Your task to perform on an android device: change notifications settings Image 0: 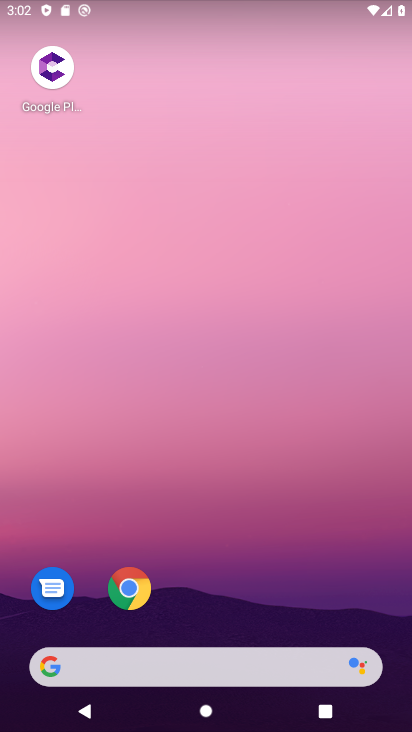
Step 0: drag from (200, 601) to (202, 124)
Your task to perform on an android device: change notifications settings Image 1: 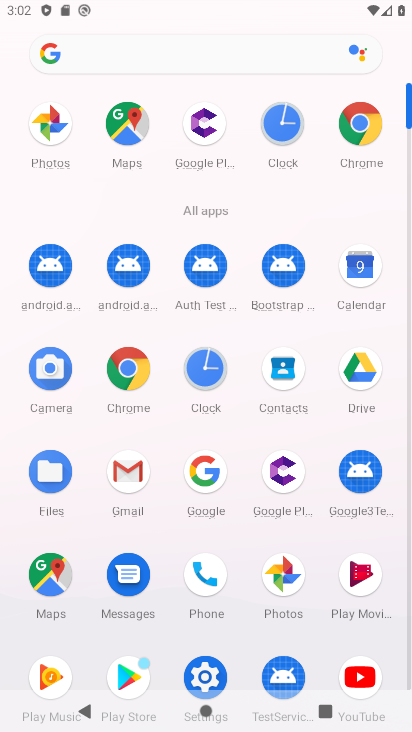
Step 1: click (205, 682)
Your task to perform on an android device: change notifications settings Image 2: 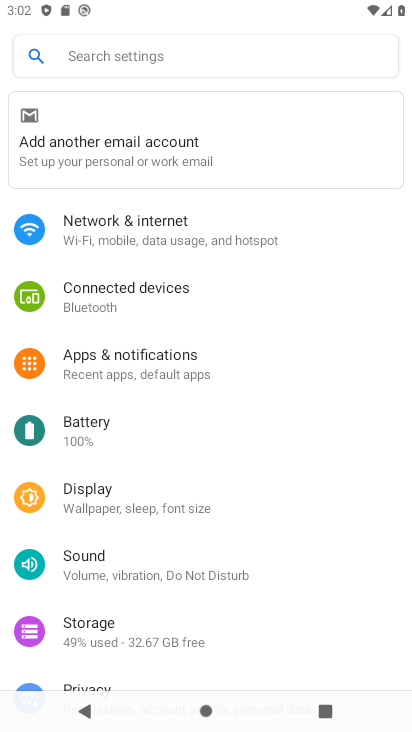
Step 2: click (171, 365)
Your task to perform on an android device: change notifications settings Image 3: 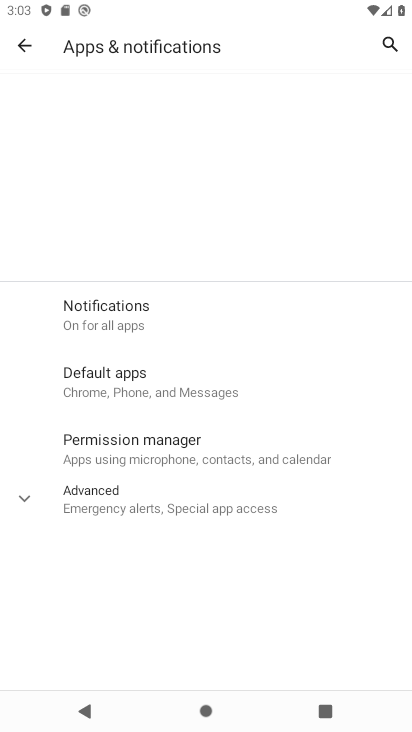
Step 3: click (134, 323)
Your task to perform on an android device: change notifications settings Image 4: 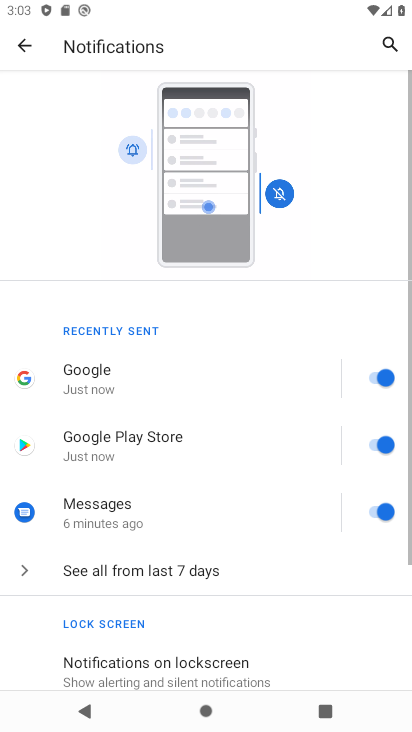
Step 4: drag from (301, 583) to (313, 80)
Your task to perform on an android device: change notifications settings Image 5: 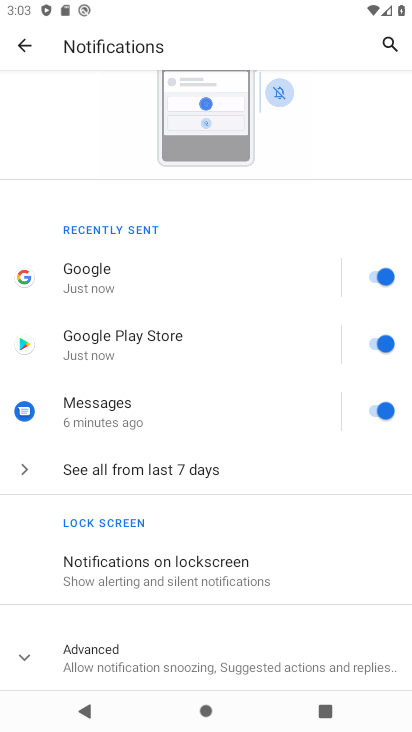
Step 5: drag from (261, 587) to (276, 249)
Your task to perform on an android device: change notifications settings Image 6: 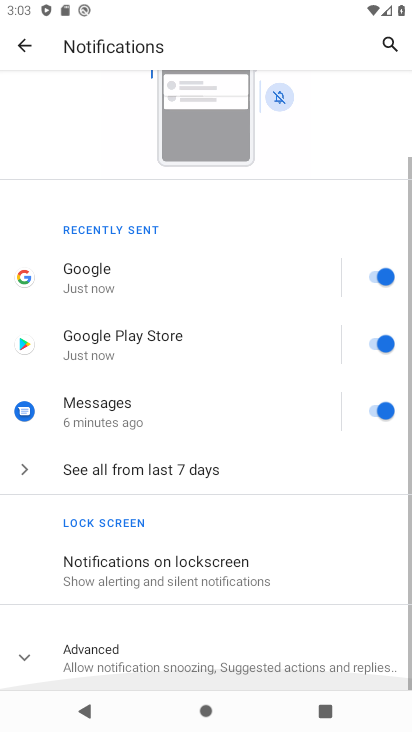
Step 6: click (120, 658)
Your task to perform on an android device: change notifications settings Image 7: 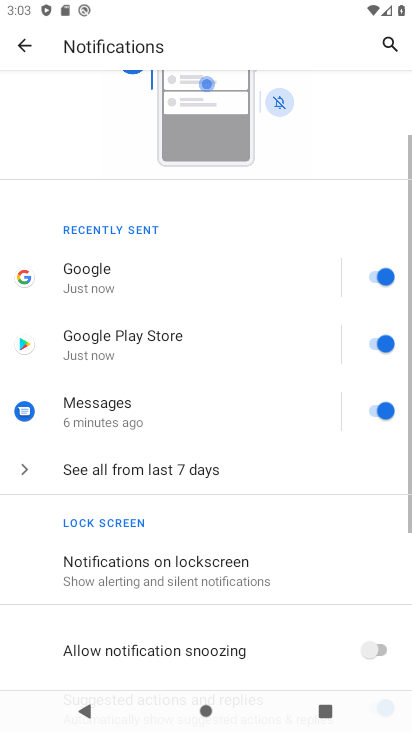
Step 7: drag from (245, 503) to (315, 81)
Your task to perform on an android device: change notifications settings Image 8: 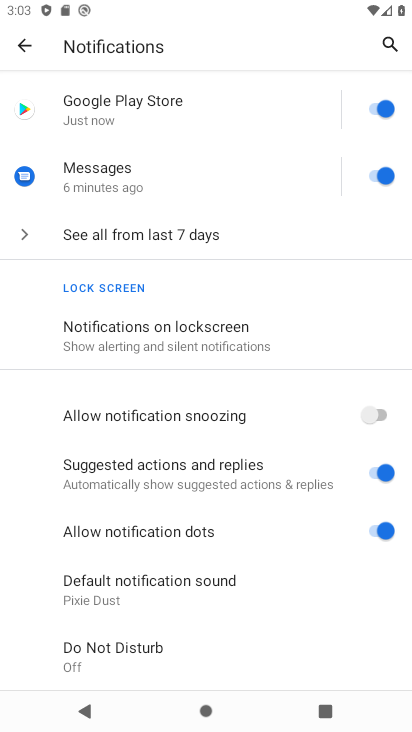
Step 8: click (380, 530)
Your task to perform on an android device: change notifications settings Image 9: 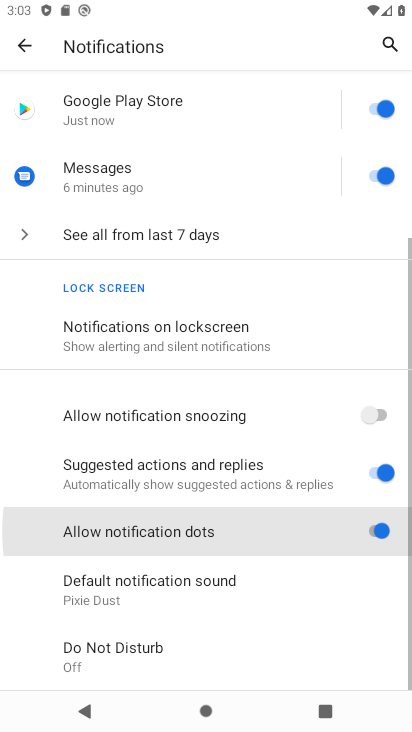
Step 9: click (377, 471)
Your task to perform on an android device: change notifications settings Image 10: 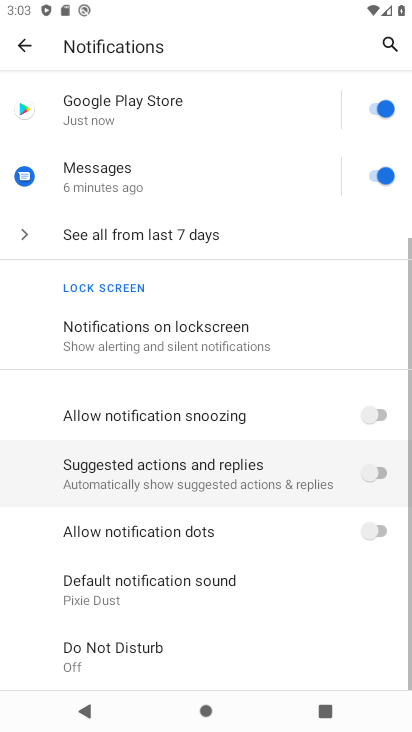
Step 10: click (370, 412)
Your task to perform on an android device: change notifications settings Image 11: 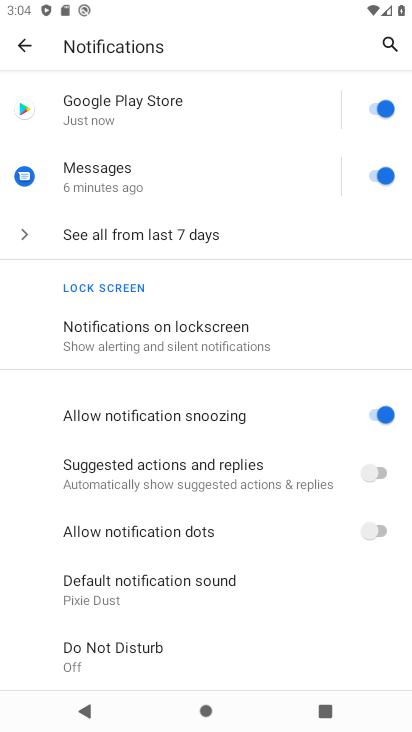
Step 11: task complete